Your task to perform on an android device: check storage Image 0: 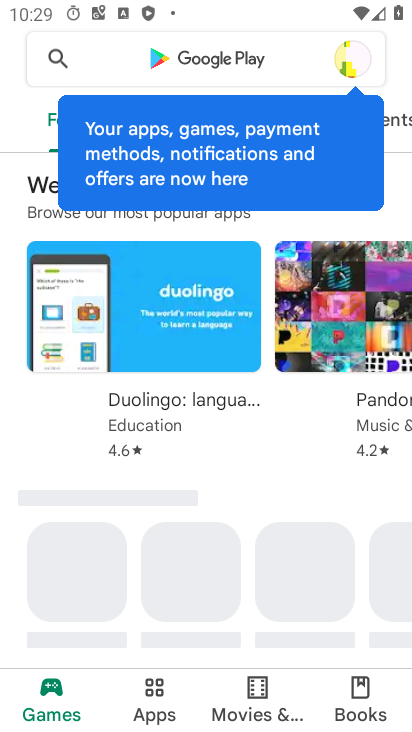
Step 0: press home button
Your task to perform on an android device: check storage Image 1: 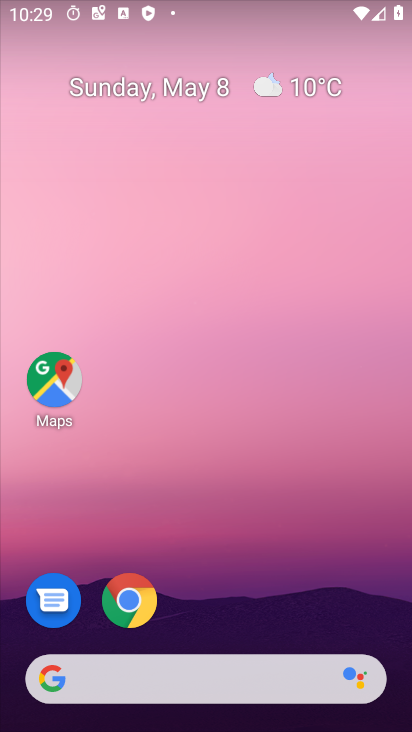
Step 1: drag from (225, 656) to (329, 244)
Your task to perform on an android device: check storage Image 2: 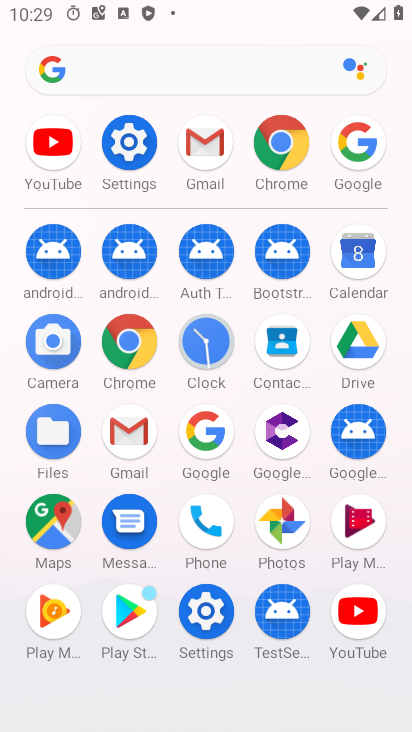
Step 2: click (203, 638)
Your task to perform on an android device: check storage Image 3: 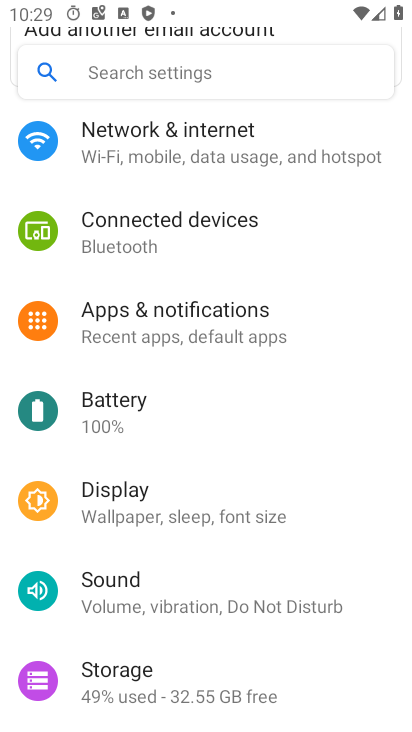
Step 3: drag from (203, 633) to (282, 265)
Your task to perform on an android device: check storage Image 4: 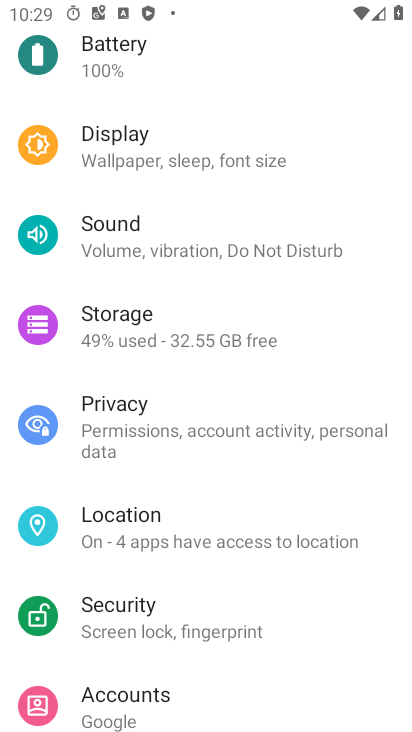
Step 4: click (236, 334)
Your task to perform on an android device: check storage Image 5: 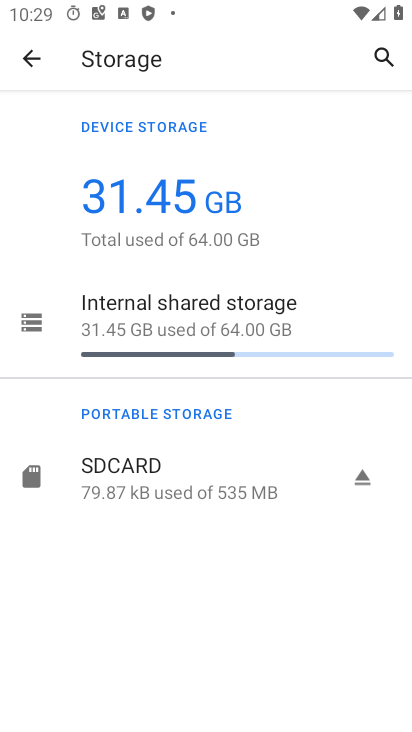
Step 5: click (236, 333)
Your task to perform on an android device: check storage Image 6: 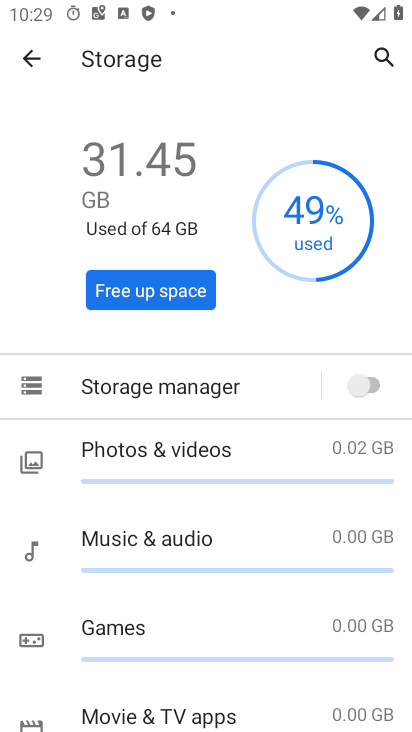
Step 6: task complete